Your task to perform on an android device: delete the emails in spam in the gmail app Image 0: 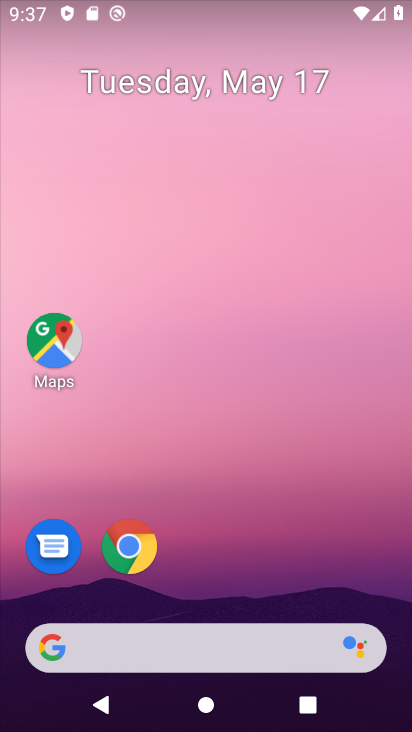
Step 0: drag from (244, 541) to (223, 163)
Your task to perform on an android device: delete the emails in spam in the gmail app Image 1: 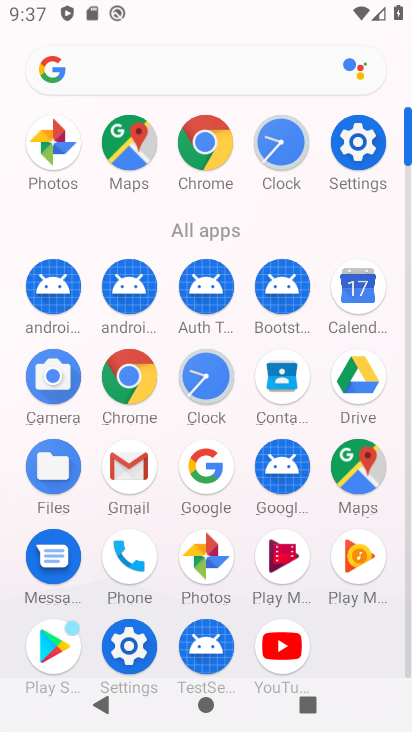
Step 1: click (134, 461)
Your task to perform on an android device: delete the emails in spam in the gmail app Image 2: 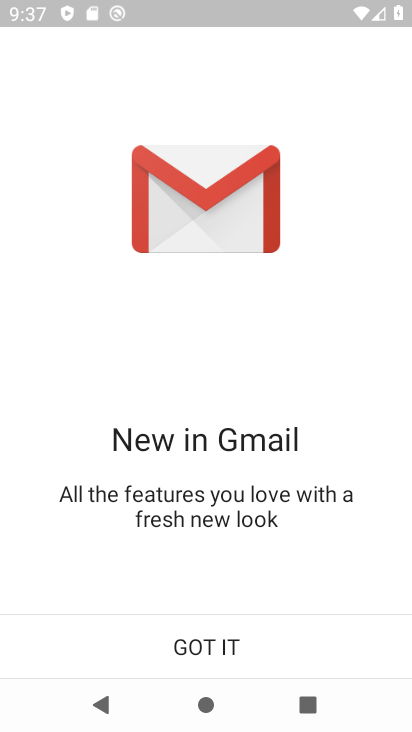
Step 2: click (228, 630)
Your task to perform on an android device: delete the emails in spam in the gmail app Image 3: 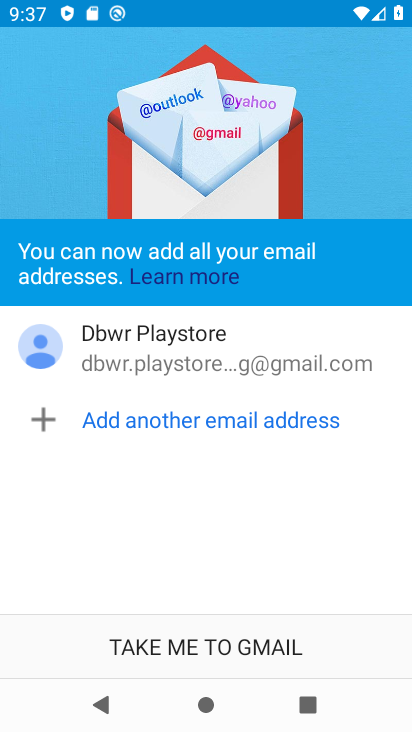
Step 3: click (230, 643)
Your task to perform on an android device: delete the emails in spam in the gmail app Image 4: 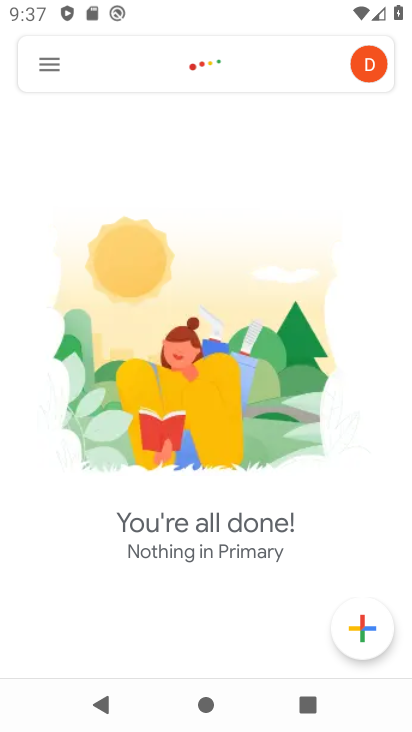
Step 4: click (49, 70)
Your task to perform on an android device: delete the emails in spam in the gmail app Image 5: 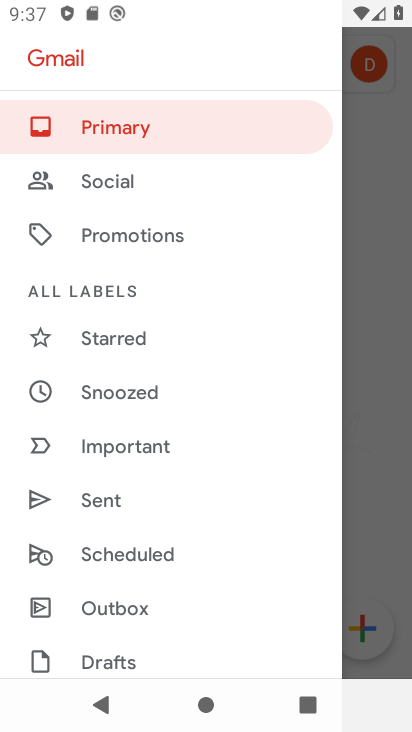
Step 5: drag from (131, 600) to (172, 255)
Your task to perform on an android device: delete the emails in spam in the gmail app Image 6: 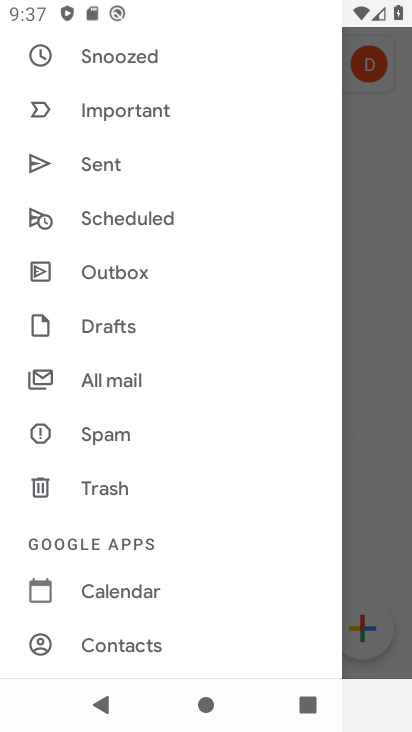
Step 6: click (115, 430)
Your task to perform on an android device: delete the emails in spam in the gmail app Image 7: 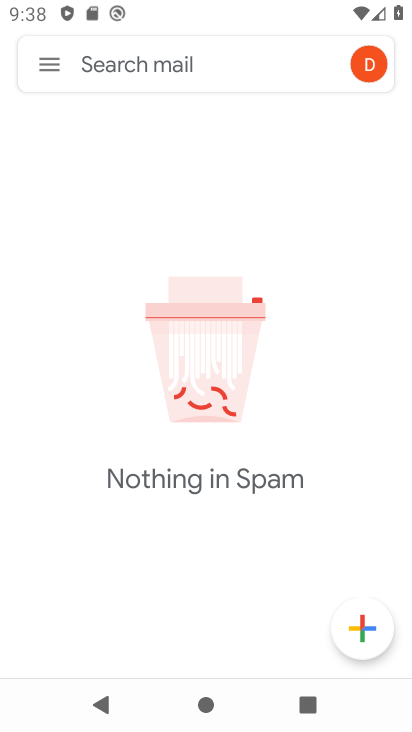
Step 7: task complete